Your task to perform on an android device: Go to ESPN.com Image 0: 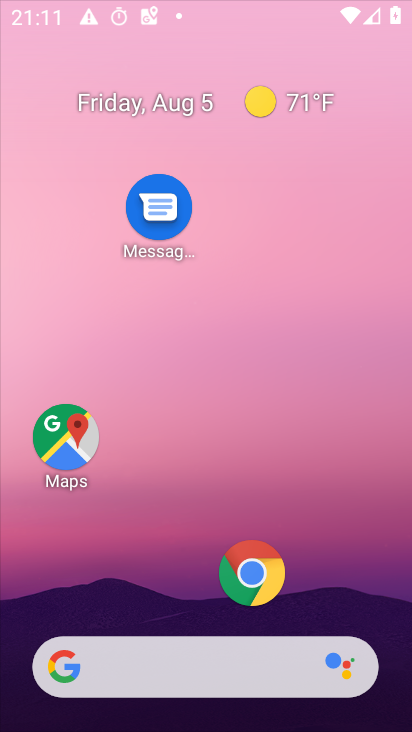
Step 0: press home button
Your task to perform on an android device: Go to ESPN.com Image 1: 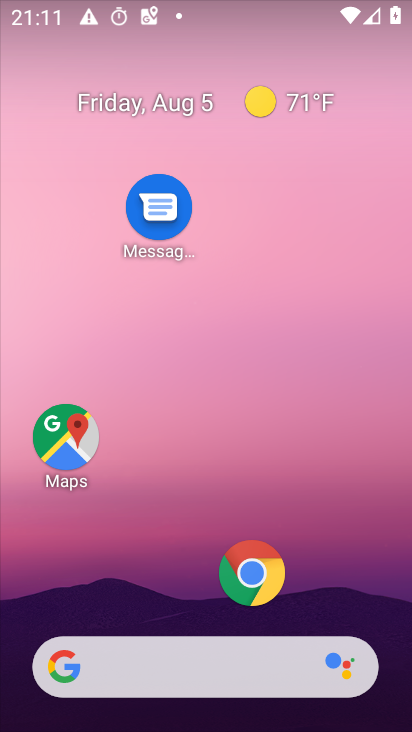
Step 1: click (248, 566)
Your task to perform on an android device: Go to ESPN.com Image 2: 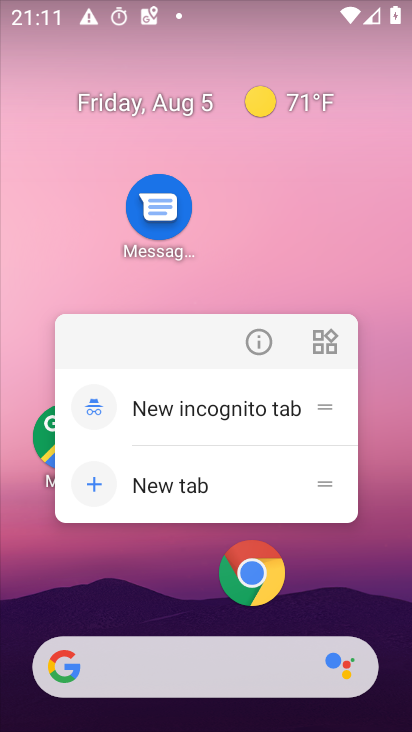
Step 2: click (248, 566)
Your task to perform on an android device: Go to ESPN.com Image 3: 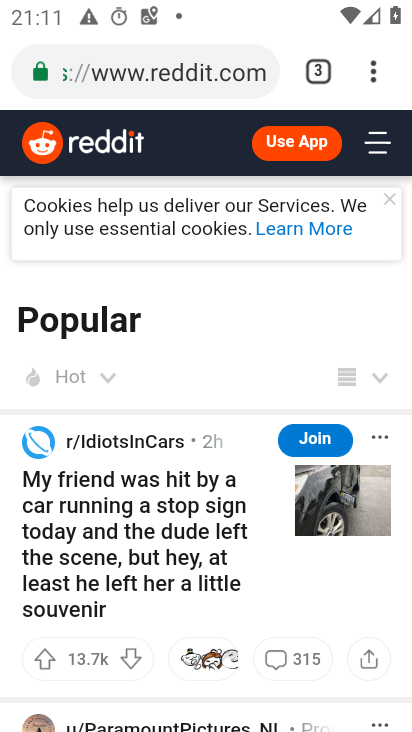
Step 3: click (318, 65)
Your task to perform on an android device: Go to ESPN.com Image 4: 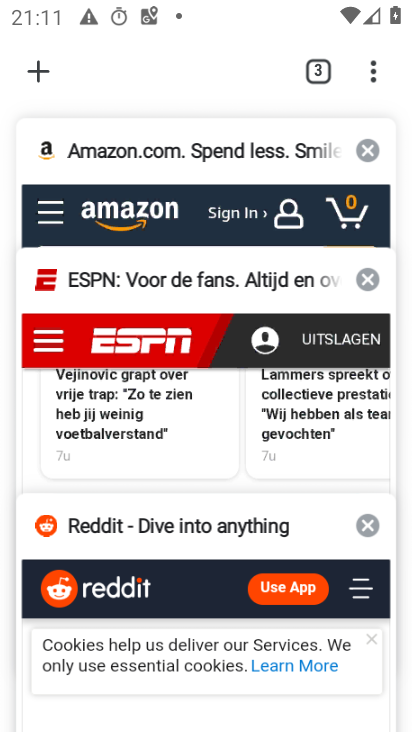
Step 4: click (134, 378)
Your task to perform on an android device: Go to ESPN.com Image 5: 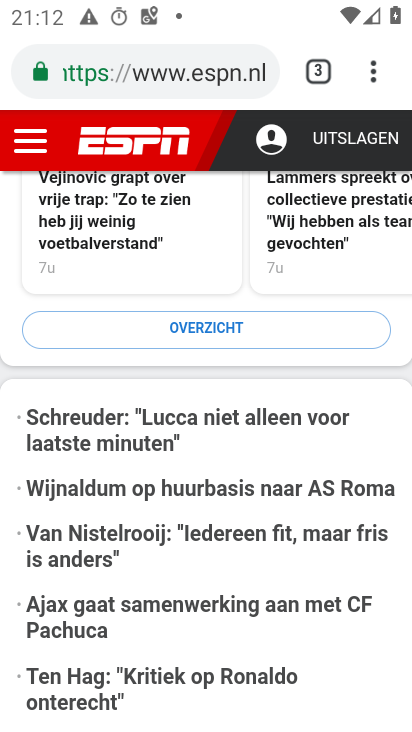
Step 5: task complete